Your task to perform on an android device: Is it going to rain today? Image 0: 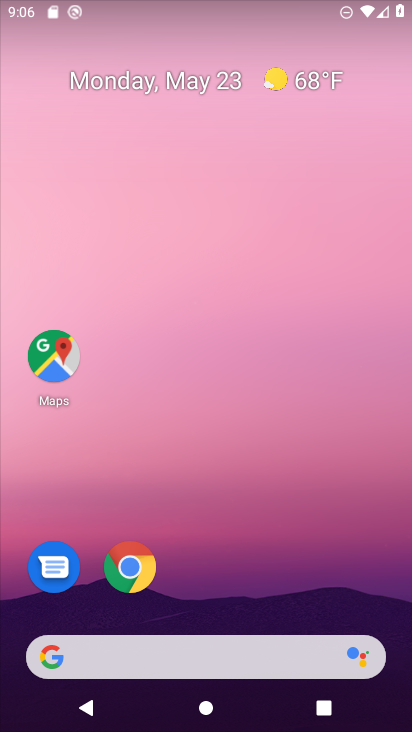
Step 0: drag from (224, 613) to (259, 153)
Your task to perform on an android device: Is it going to rain today? Image 1: 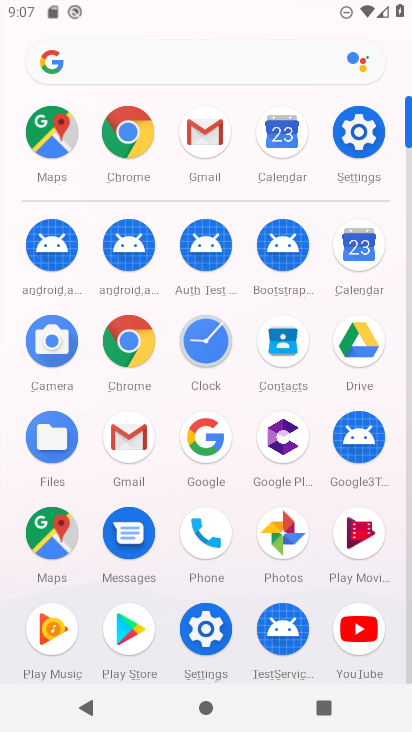
Step 1: drag from (203, 670) to (289, 307)
Your task to perform on an android device: Is it going to rain today? Image 2: 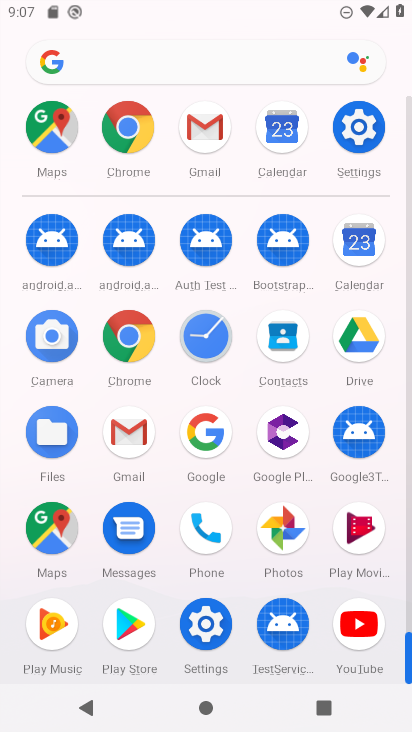
Step 2: click (129, 50)
Your task to perform on an android device: Is it going to rain today? Image 3: 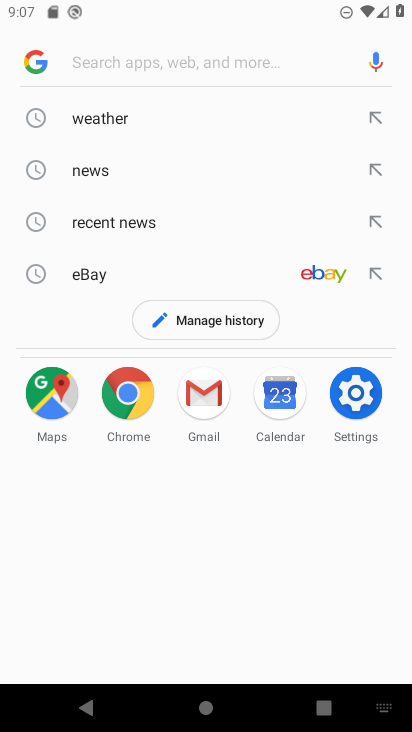
Step 3: type "Is it going to rain today?"
Your task to perform on an android device: Is it going to rain today? Image 4: 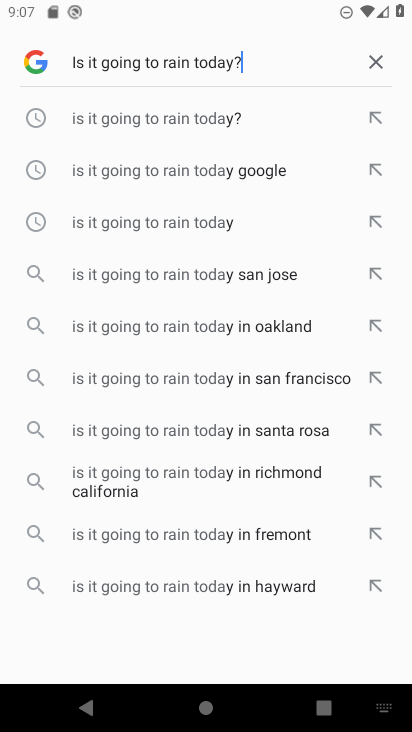
Step 4: type ""
Your task to perform on an android device: Is it going to rain today? Image 5: 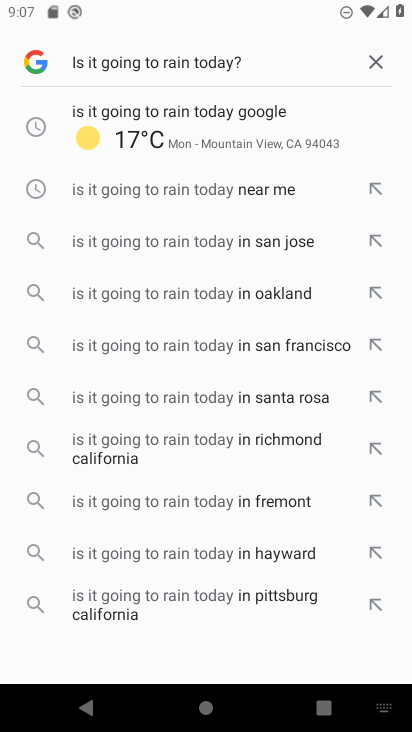
Step 5: click (145, 111)
Your task to perform on an android device: Is it going to rain today? Image 6: 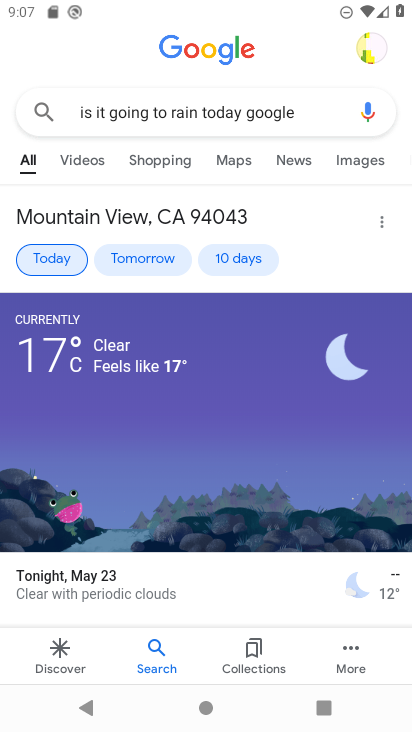
Step 6: task complete